Your task to perform on an android device: open a new tab in the chrome app Image 0: 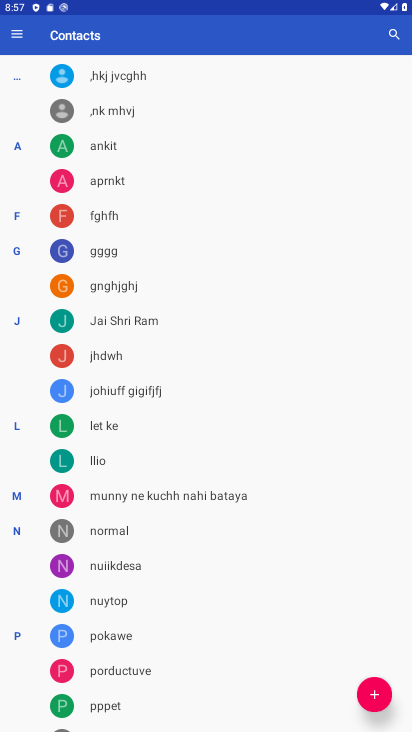
Step 0: press home button
Your task to perform on an android device: open a new tab in the chrome app Image 1: 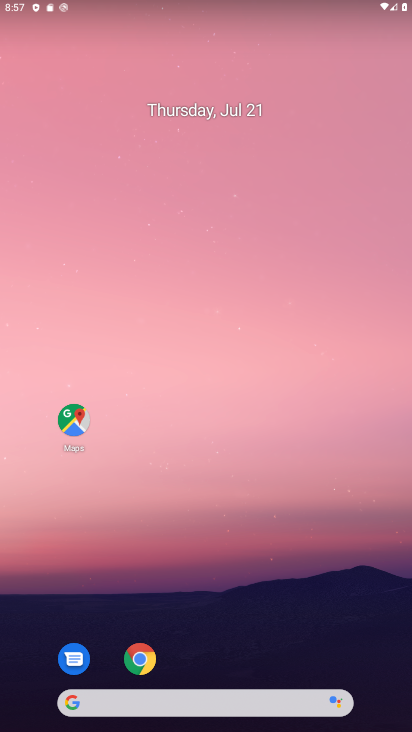
Step 1: click (133, 675)
Your task to perform on an android device: open a new tab in the chrome app Image 2: 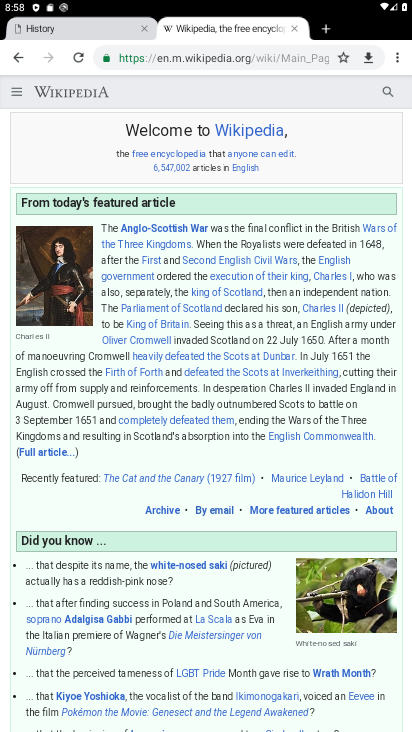
Step 2: click (331, 29)
Your task to perform on an android device: open a new tab in the chrome app Image 3: 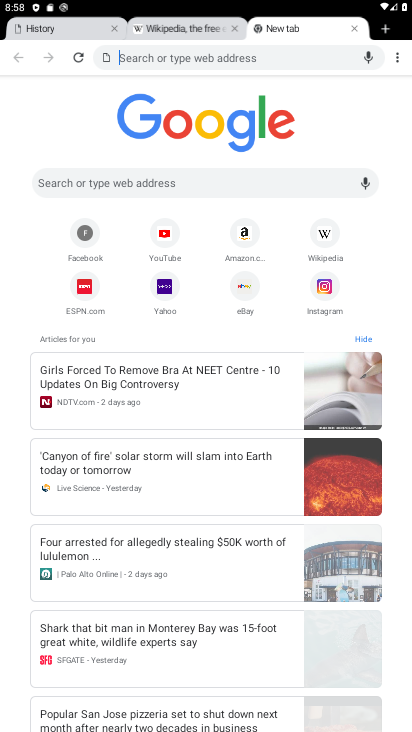
Step 3: task complete